Your task to perform on an android device: turn off translation in the chrome app Image 0: 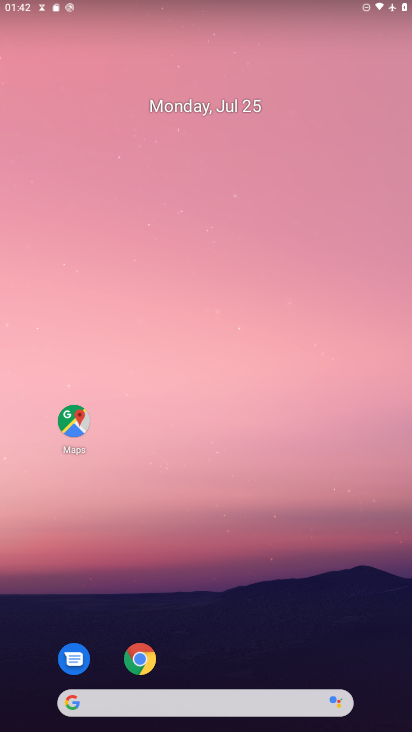
Step 0: drag from (236, 609) to (223, 219)
Your task to perform on an android device: turn off translation in the chrome app Image 1: 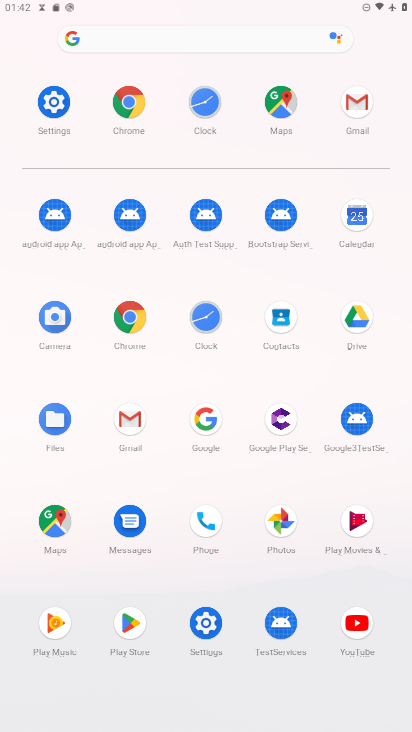
Step 1: click (122, 93)
Your task to perform on an android device: turn off translation in the chrome app Image 2: 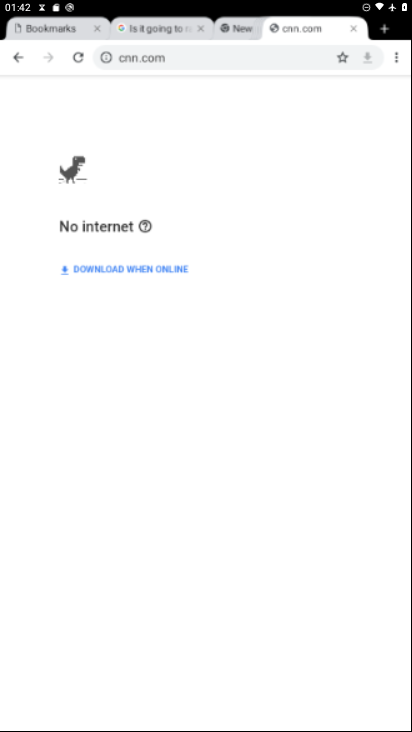
Step 2: click (405, 53)
Your task to perform on an android device: turn off translation in the chrome app Image 3: 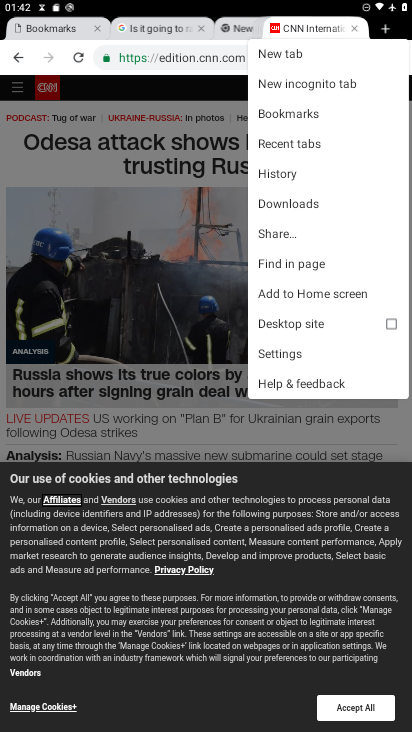
Step 3: click (306, 348)
Your task to perform on an android device: turn off translation in the chrome app Image 4: 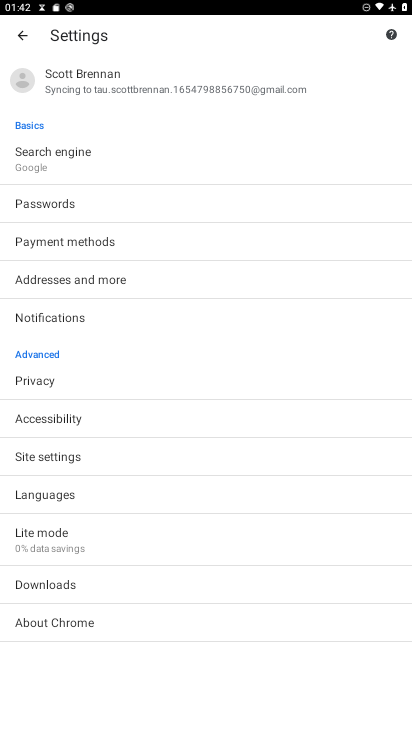
Step 4: click (85, 492)
Your task to perform on an android device: turn off translation in the chrome app Image 5: 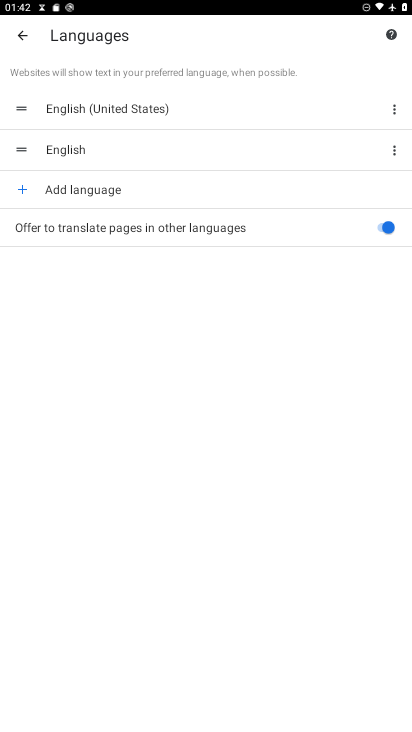
Step 5: click (389, 214)
Your task to perform on an android device: turn off translation in the chrome app Image 6: 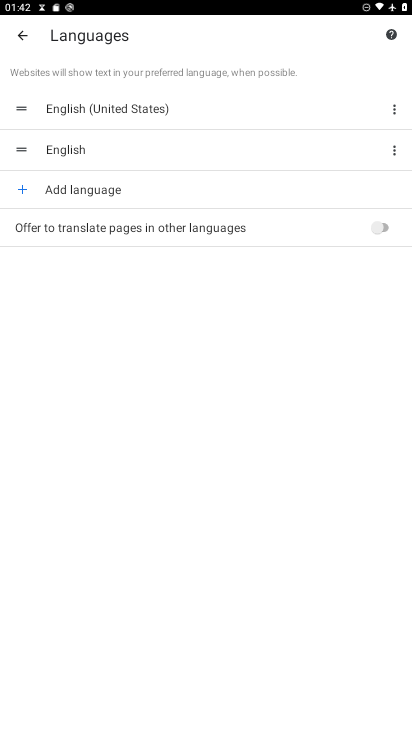
Step 6: task complete